Your task to perform on an android device: Open maps Image 0: 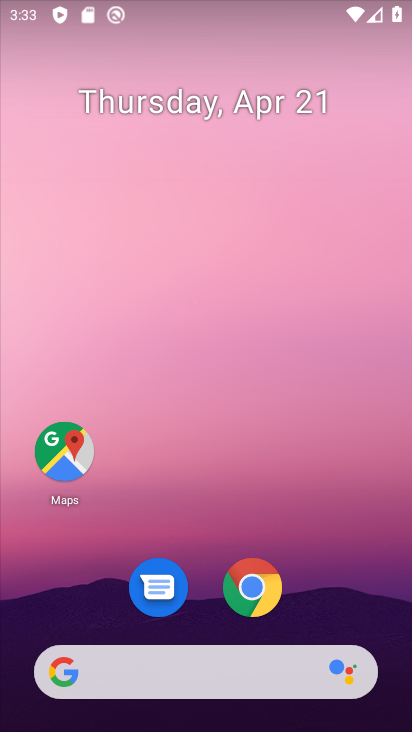
Step 0: click (57, 458)
Your task to perform on an android device: Open maps Image 1: 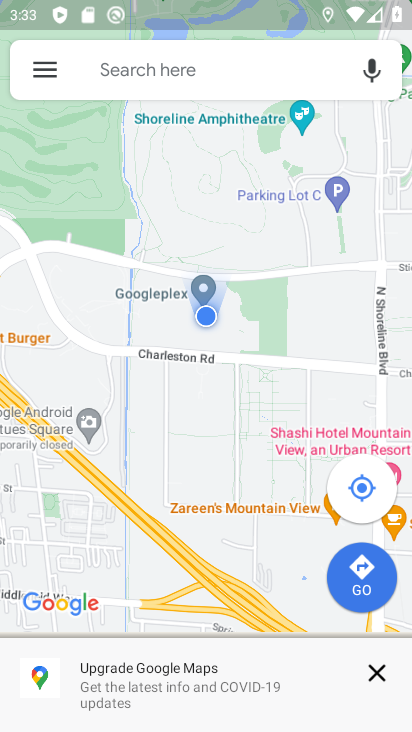
Step 1: task complete